Your task to perform on an android device: see sites visited before in the chrome app Image 0: 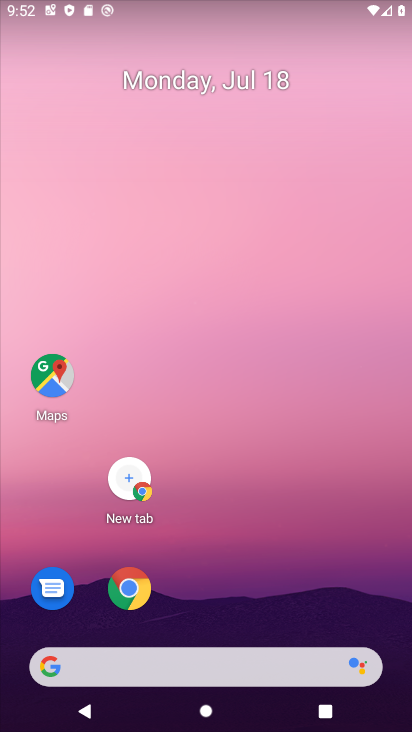
Step 0: click (125, 579)
Your task to perform on an android device: see sites visited before in the chrome app Image 1: 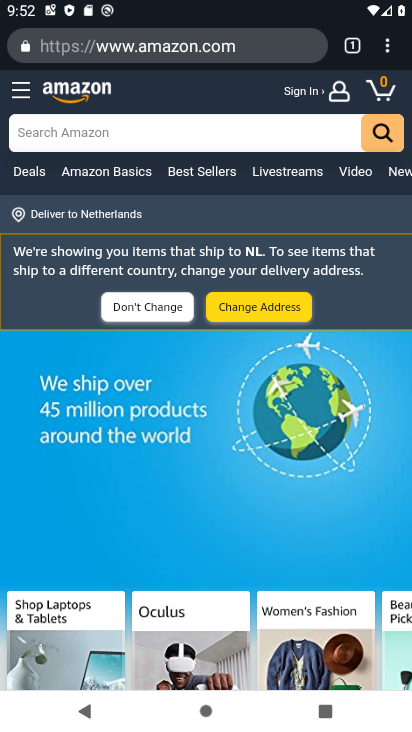
Step 1: click (398, 52)
Your task to perform on an android device: see sites visited before in the chrome app Image 2: 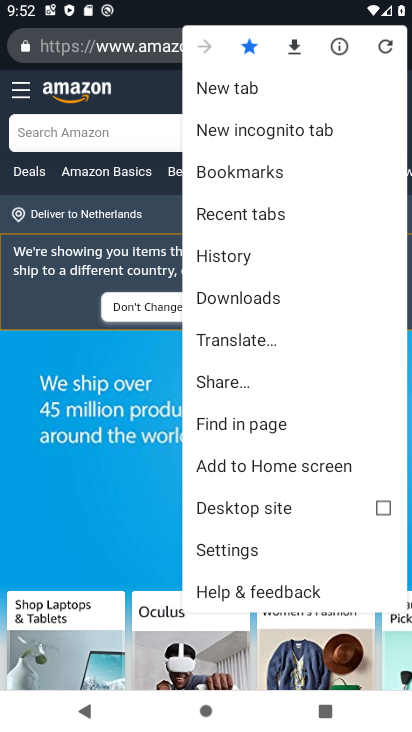
Step 2: click (257, 232)
Your task to perform on an android device: see sites visited before in the chrome app Image 3: 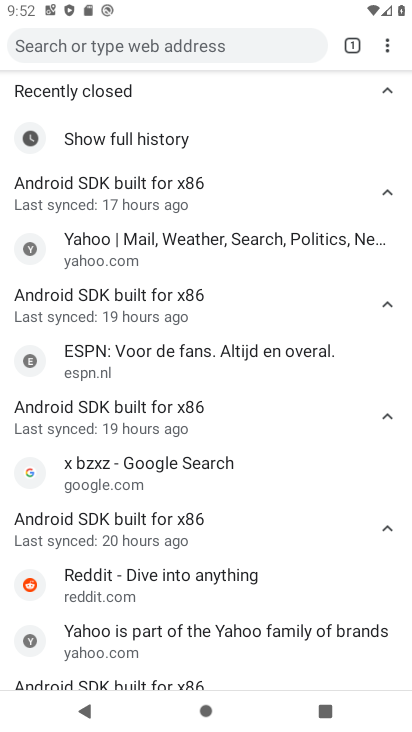
Step 3: task complete